Your task to perform on an android device: toggle data saver in the chrome app Image 0: 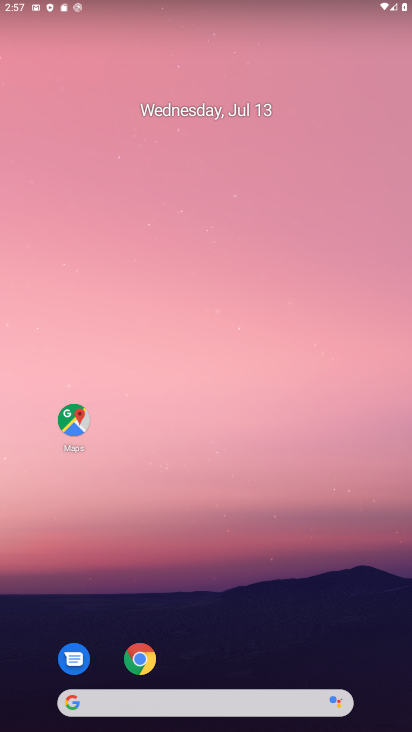
Step 0: drag from (170, 338) to (101, 37)
Your task to perform on an android device: toggle data saver in the chrome app Image 1: 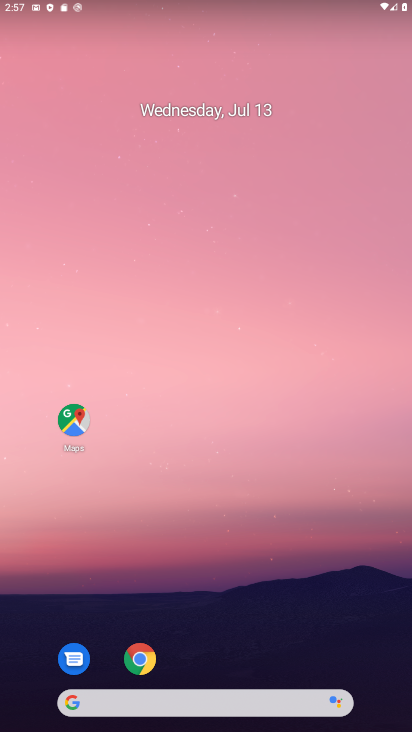
Step 1: drag from (252, 594) to (219, 201)
Your task to perform on an android device: toggle data saver in the chrome app Image 2: 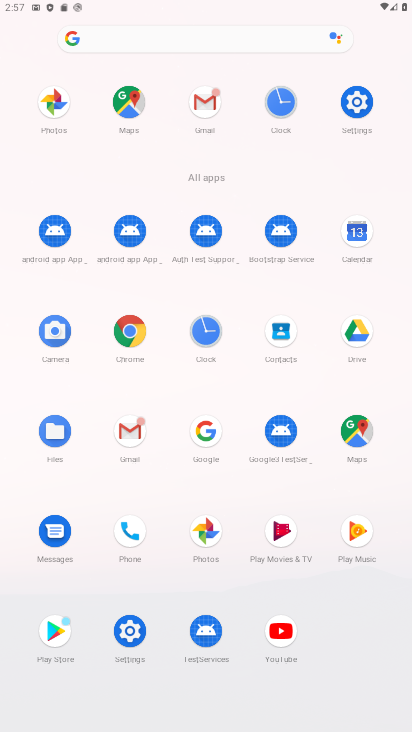
Step 2: click (240, 2)
Your task to perform on an android device: toggle data saver in the chrome app Image 3: 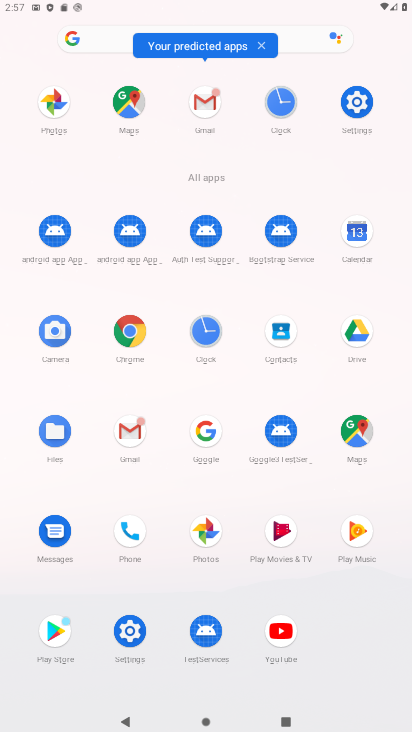
Step 3: drag from (246, 456) to (133, 32)
Your task to perform on an android device: toggle data saver in the chrome app Image 4: 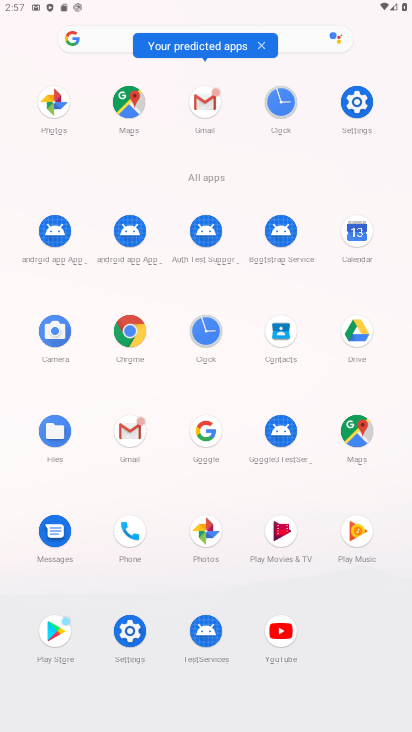
Step 4: drag from (257, 322) to (243, 217)
Your task to perform on an android device: toggle data saver in the chrome app Image 5: 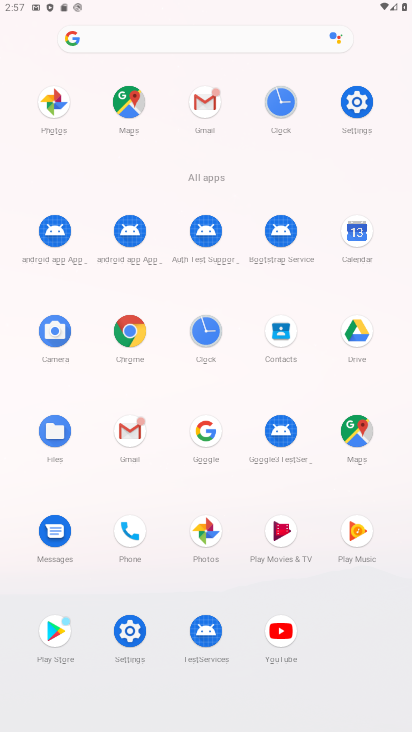
Step 5: click (220, 1)
Your task to perform on an android device: toggle data saver in the chrome app Image 6: 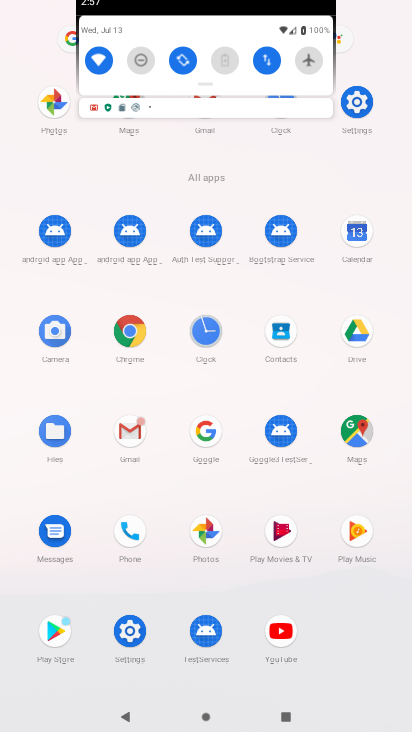
Step 6: drag from (246, 430) to (206, 134)
Your task to perform on an android device: toggle data saver in the chrome app Image 7: 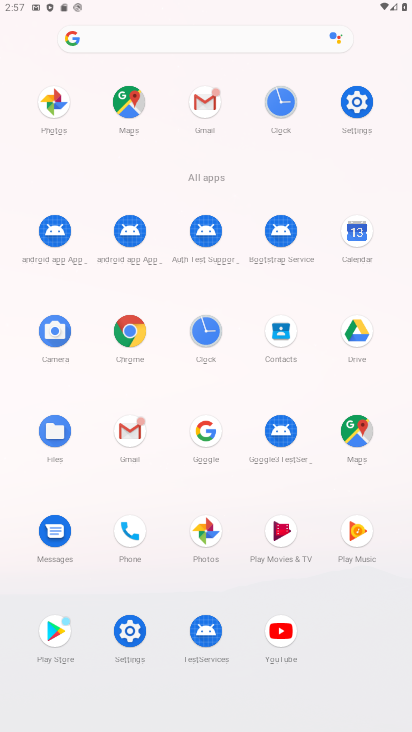
Step 7: click (119, 335)
Your task to perform on an android device: toggle data saver in the chrome app Image 8: 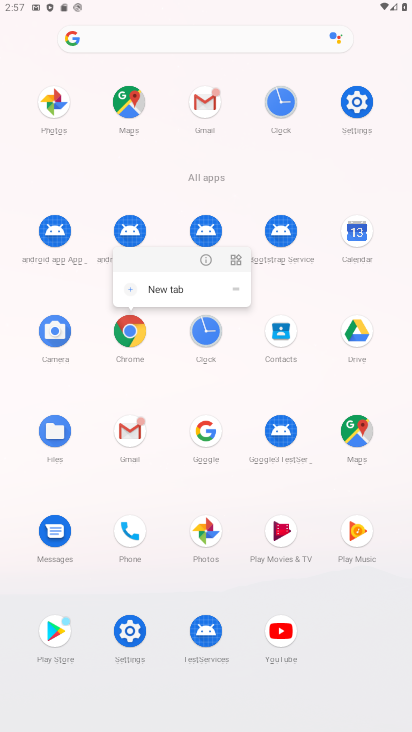
Step 8: click (145, 325)
Your task to perform on an android device: toggle data saver in the chrome app Image 9: 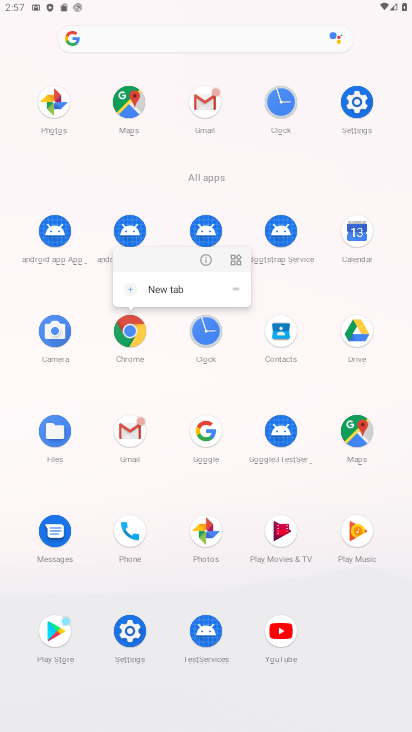
Step 9: click (143, 325)
Your task to perform on an android device: toggle data saver in the chrome app Image 10: 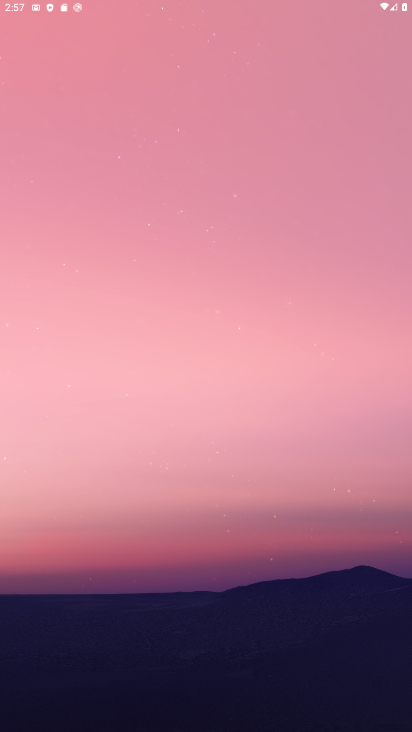
Step 10: click (136, 326)
Your task to perform on an android device: toggle data saver in the chrome app Image 11: 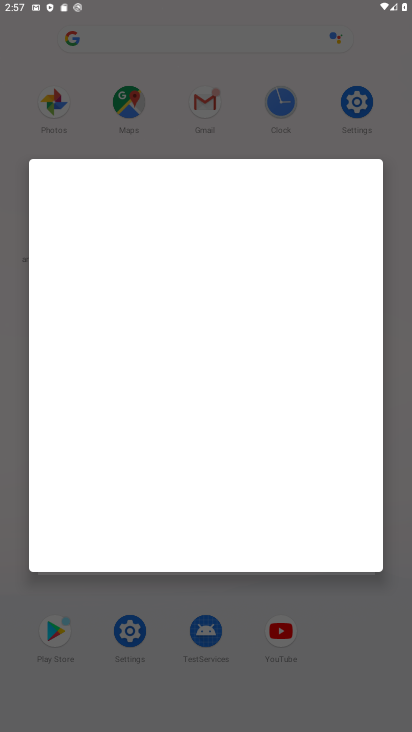
Step 11: click (141, 325)
Your task to perform on an android device: toggle data saver in the chrome app Image 12: 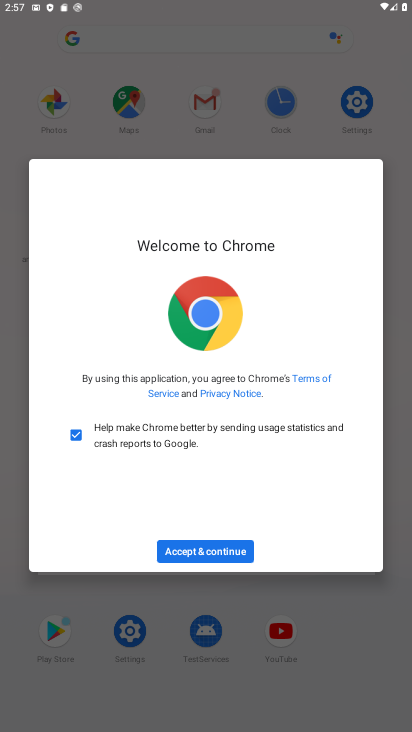
Step 12: click (220, 553)
Your task to perform on an android device: toggle data saver in the chrome app Image 13: 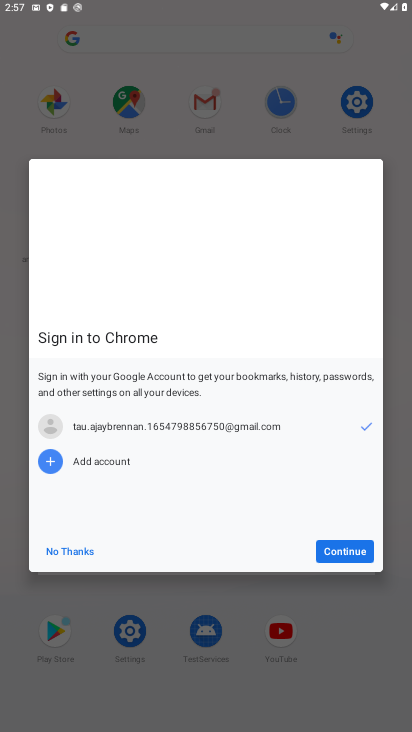
Step 13: click (218, 545)
Your task to perform on an android device: toggle data saver in the chrome app Image 14: 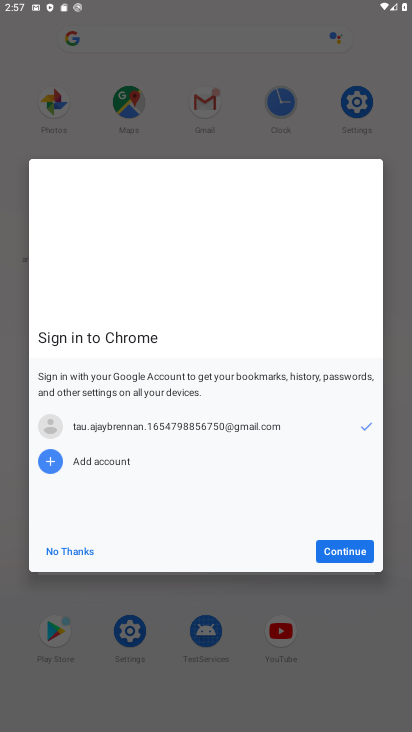
Step 14: click (212, 543)
Your task to perform on an android device: toggle data saver in the chrome app Image 15: 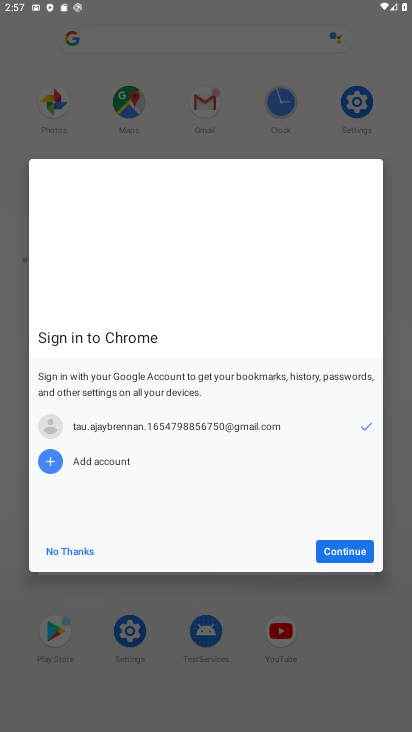
Step 15: click (350, 549)
Your task to perform on an android device: toggle data saver in the chrome app Image 16: 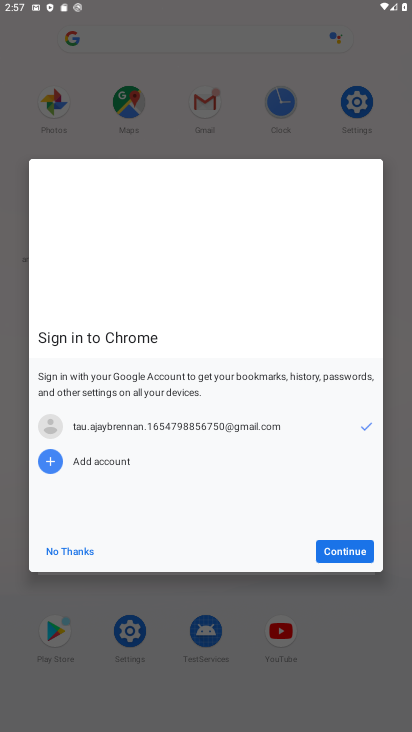
Step 16: click (352, 546)
Your task to perform on an android device: toggle data saver in the chrome app Image 17: 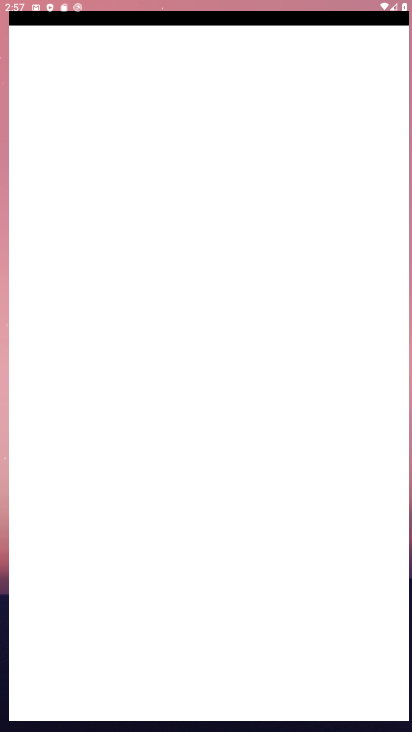
Step 17: click (346, 545)
Your task to perform on an android device: toggle data saver in the chrome app Image 18: 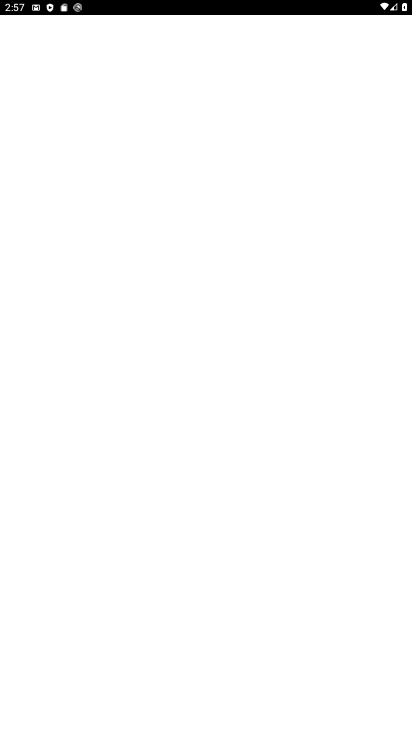
Step 18: click (348, 546)
Your task to perform on an android device: toggle data saver in the chrome app Image 19: 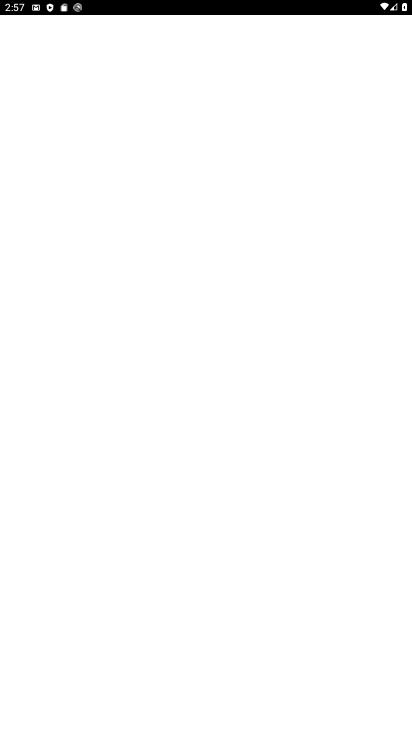
Step 19: click (349, 546)
Your task to perform on an android device: toggle data saver in the chrome app Image 20: 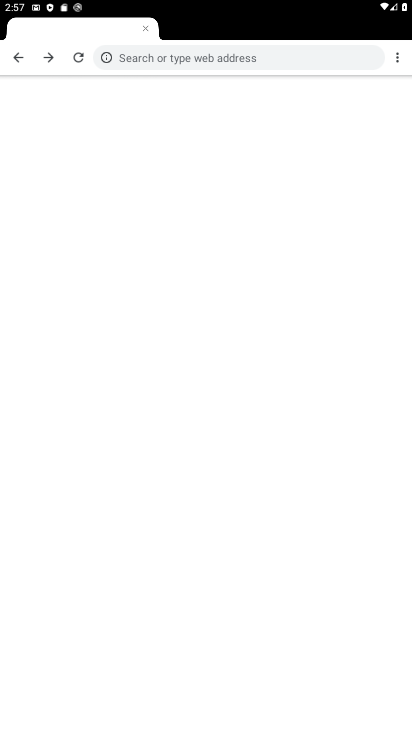
Step 20: click (351, 546)
Your task to perform on an android device: toggle data saver in the chrome app Image 21: 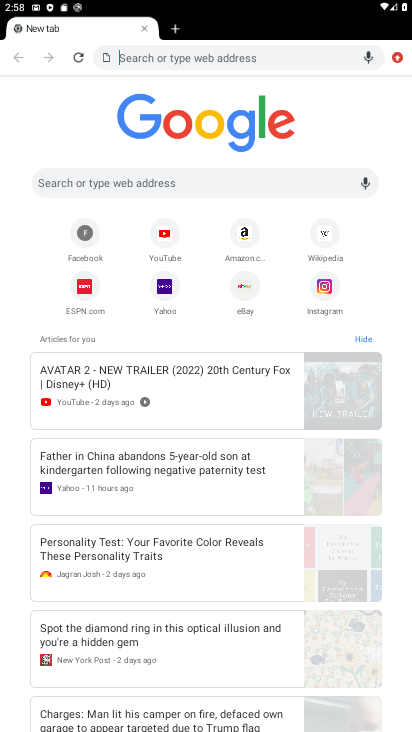
Step 21: click (401, 50)
Your task to perform on an android device: toggle data saver in the chrome app Image 22: 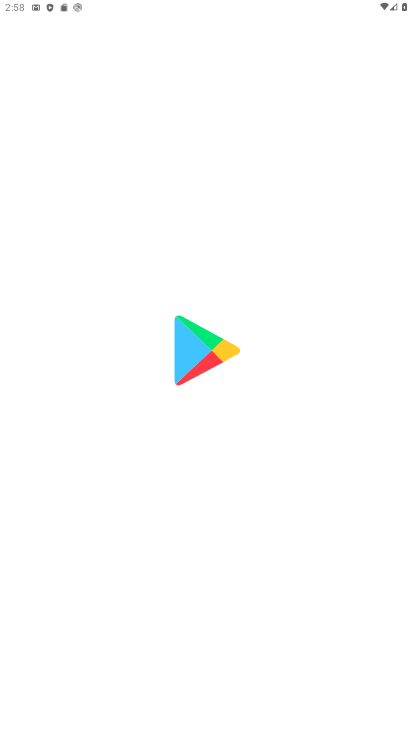
Step 22: drag from (396, 154) to (279, 292)
Your task to perform on an android device: toggle data saver in the chrome app Image 23: 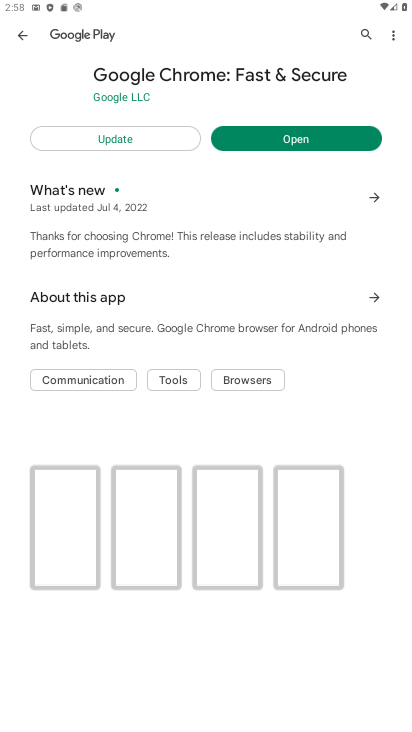
Step 23: click (391, 45)
Your task to perform on an android device: toggle data saver in the chrome app Image 24: 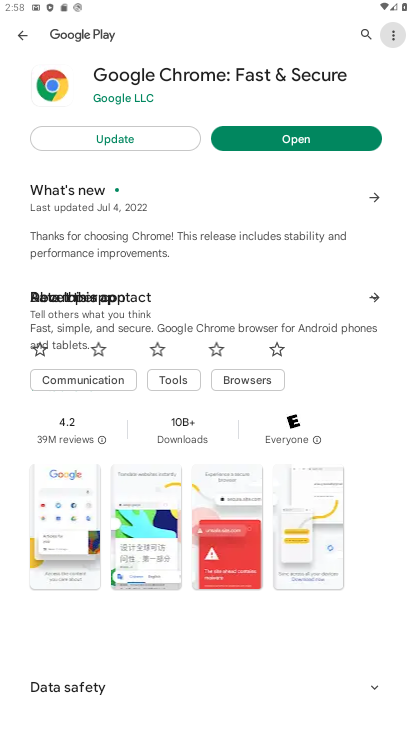
Step 24: task complete